Your task to perform on an android device: Open network settings Image 0: 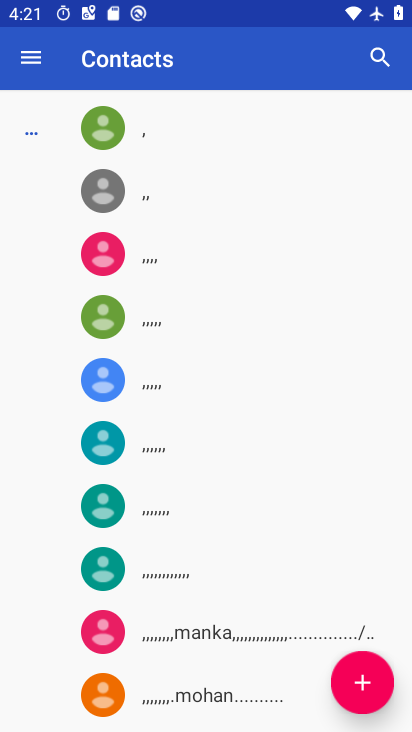
Step 0: drag from (373, 635) to (242, 203)
Your task to perform on an android device: Open network settings Image 1: 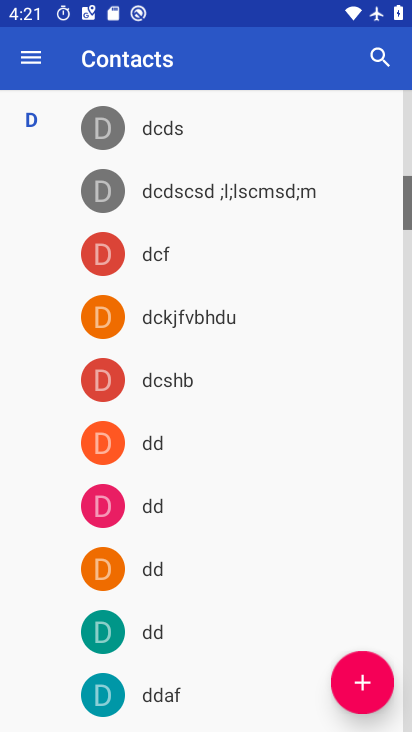
Step 1: press back button
Your task to perform on an android device: Open network settings Image 2: 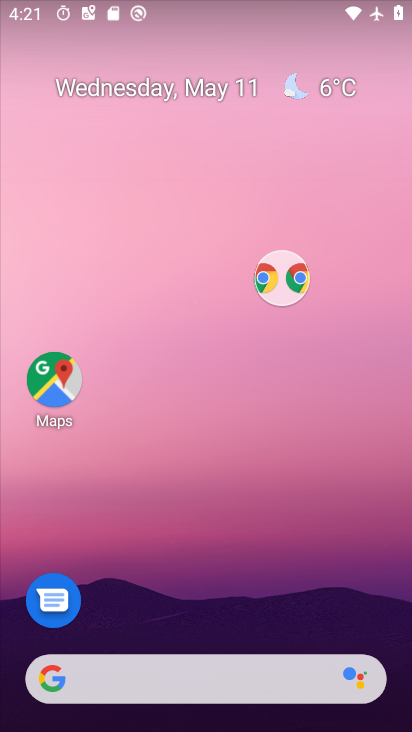
Step 2: drag from (343, 617) to (98, 105)
Your task to perform on an android device: Open network settings Image 3: 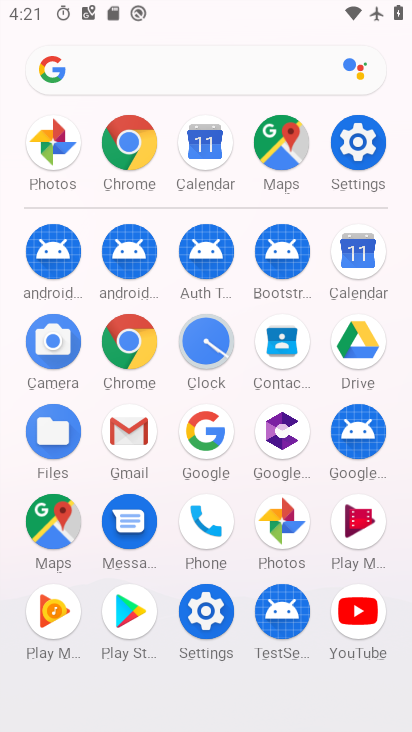
Step 3: click (367, 158)
Your task to perform on an android device: Open network settings Image 4: 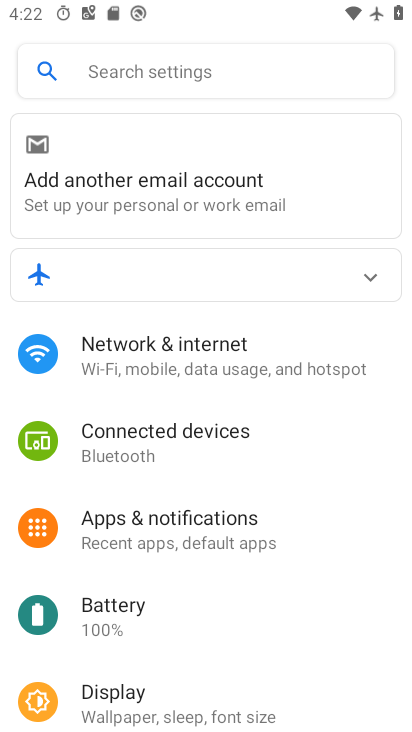
Step 4: click (138, 351)
Your task to perform on an android device: Open network settings Image 5: 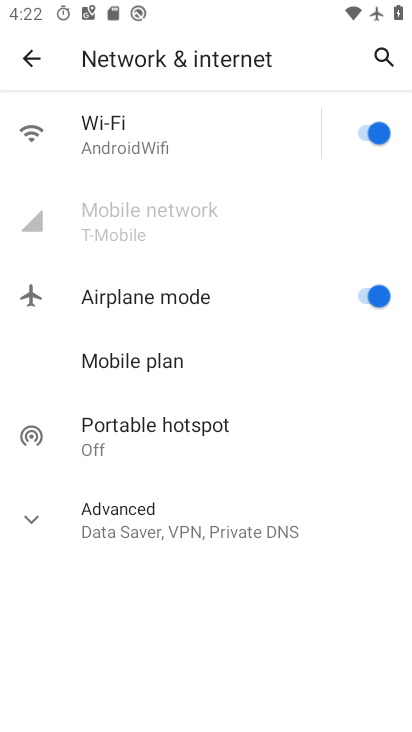
Step 5: task complete